Your task to perform on an android device: install app "LinkedIn" Image 0: 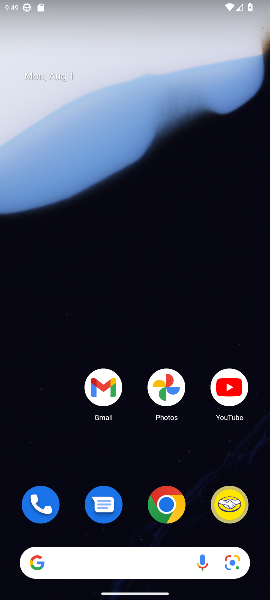
Step 0: drag from (35, 422) to (37, 7)
Your task to perform on an android device: install app "LinkedIn" Image 1: 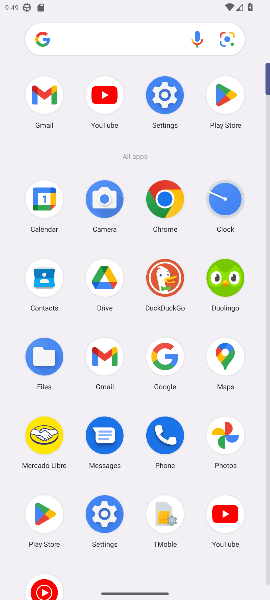
Step 1: click (231, 98)
Your task to perform on an android device: install app "LinkedIn" Image 2: 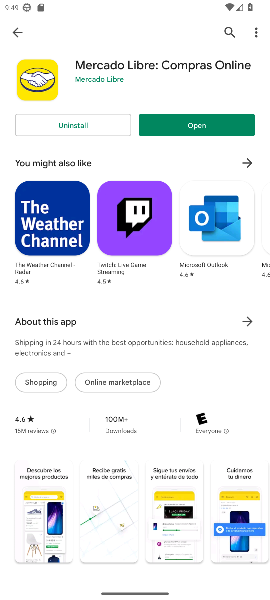
Step 2: click (228, 26)
Your task to perform on an android device: install app "LinkedIn" Image 3: 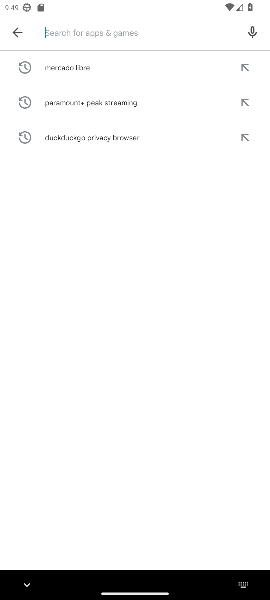
Step 3: type "LinkedIn"
Your task to perform on an android device: install app "LinkedIn" Image 4: 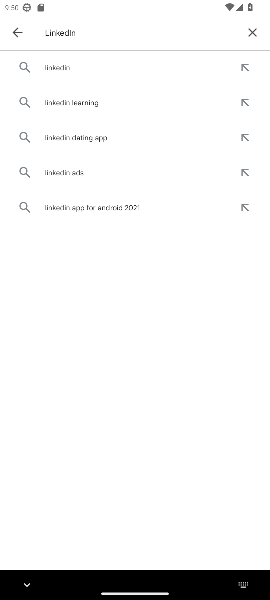
Step 4: click (70, 66)
Your task to perform on an android device: install app "LinkedIn" Image 5: 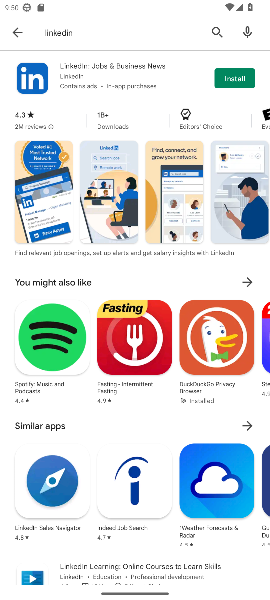
Step 5: click (70, 66)
Your task to perform on an android device: install app "LinkedIn" Image 6: 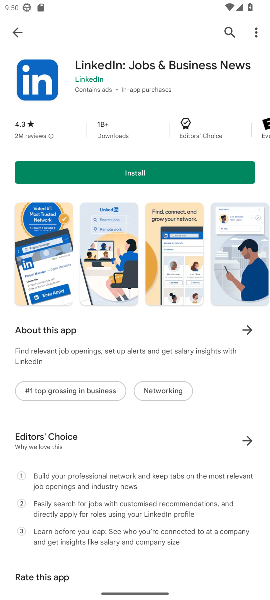
Step 6: click (183, 177)
Your task to perform on an android device: install app "LinkedIn" Image 7: 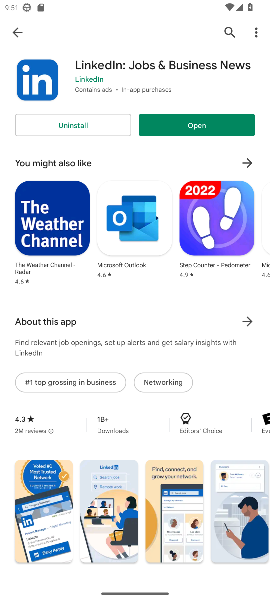
Step 7: task complete